Your task to perform on an android device: add a label to a message in the gmail app Image 0: 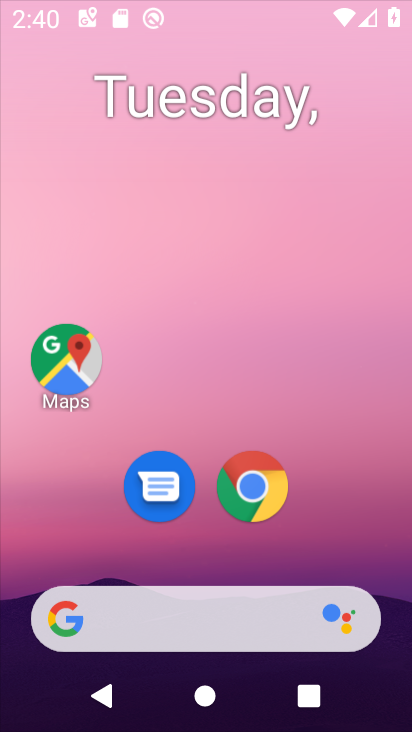
Step 0: press home button
Your task to perform on an android device: add a label to a message in the gmail app Image 1: 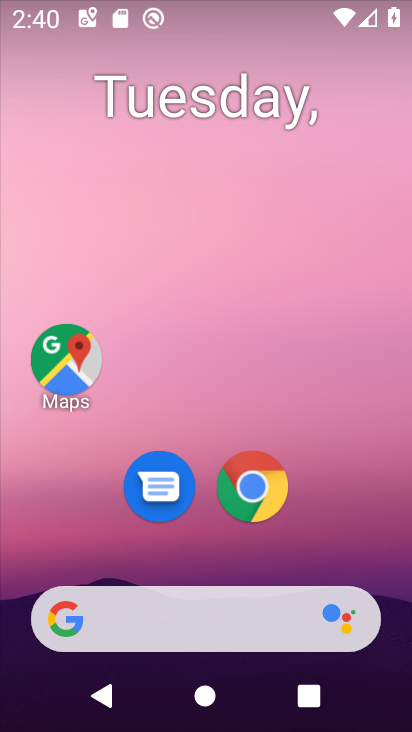
Step 1: drag from (207, 559) to (239, 113)
Your task to perform on an android device: add a label to a message in the gmail app Image 2: 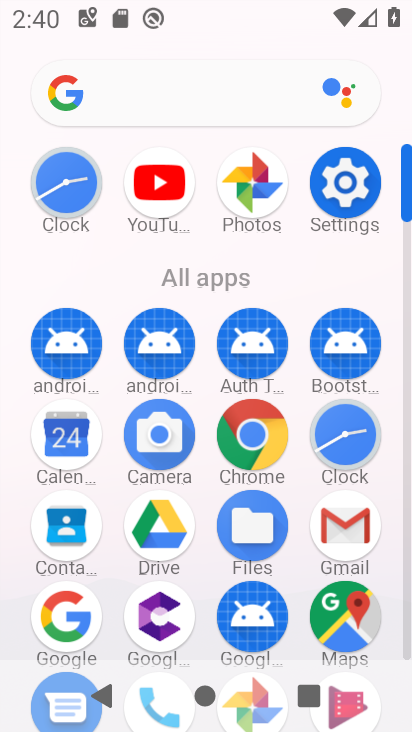
Step 2: click (339, 515)
Your task to perform on an android device: add a label to a message in the gmail app Image 3: 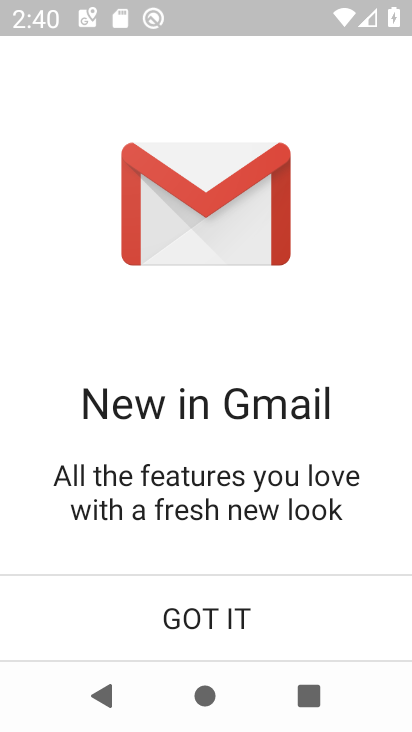
Step 3: click (217, 635)
Your task to perform on an android device: add a label to a message in the gmail app Image 4: 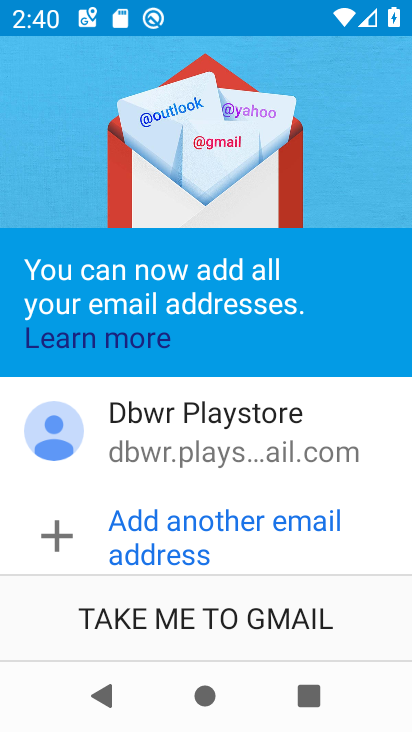
Step 4: click (198, 628)
Your task to perform on an android device: add a label to a message in the gmail app Image 5: 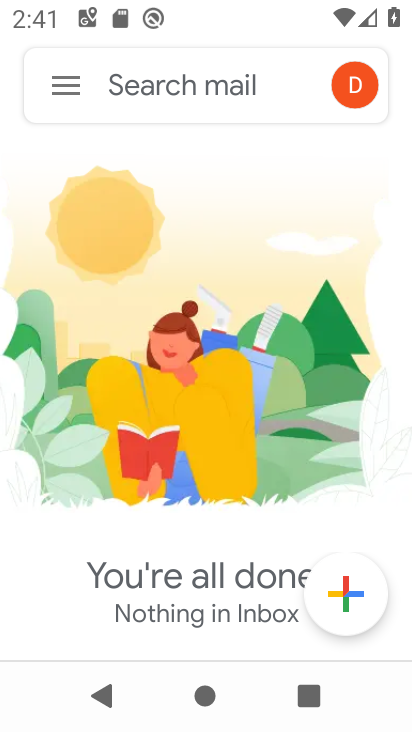
Step 5: task complete